Your task to perform on an android device: Open Reddit.com Image 0: 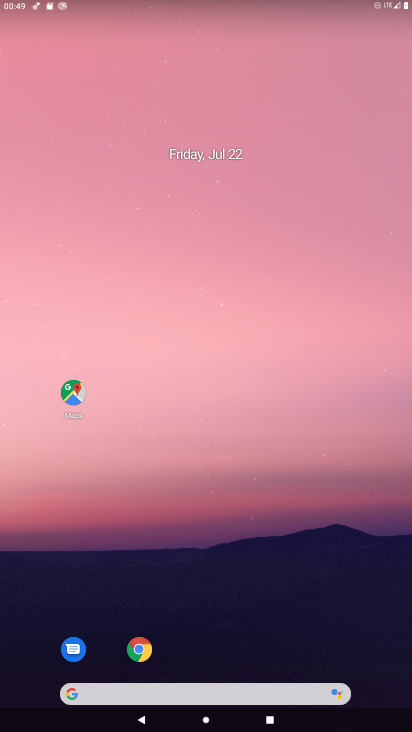
Step 0: drag from (230, 722) to (230, 326)
Your task to perform on an android device: Open Reddit.com Image 1: 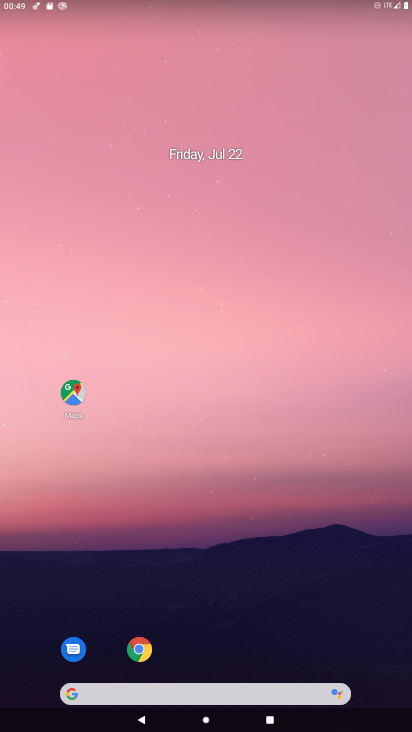
Step 1: click (143, 652)
Your task to perform on an android device: Open Reddit.com Image 2: 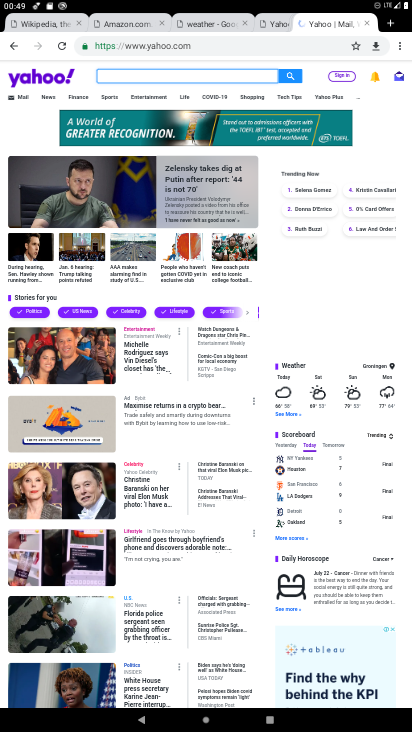
Step 2: click (401, 49)
Your task to perform on an android device: Open Reddit.com Image 3: 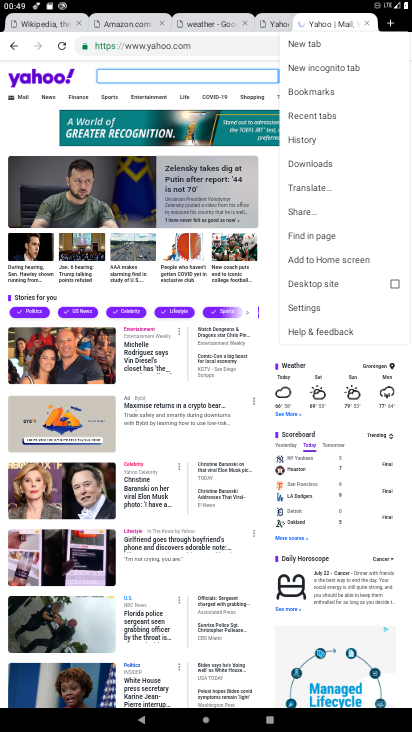
Step 3: click (311, 43)
Your task to perform on an android device: Open Reddit.com Image 4: 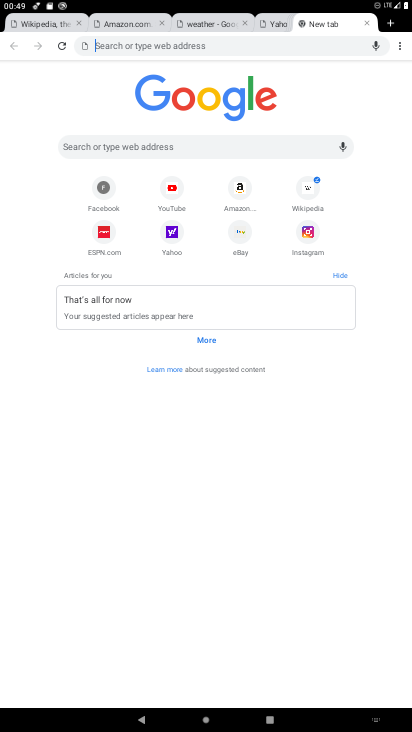
Step 4: click (220, 141)
Your task to perform on an android device: Open Reddit.com Image 5: 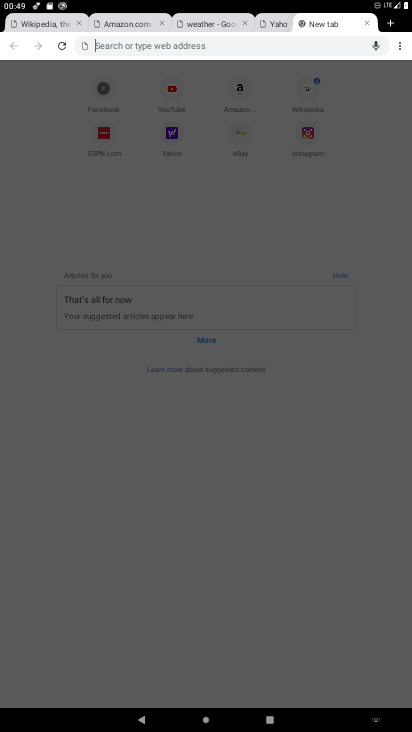
Step 5: type "Reddit.com"
Your task to perform on an android device: Open Reddit.com Image 6: 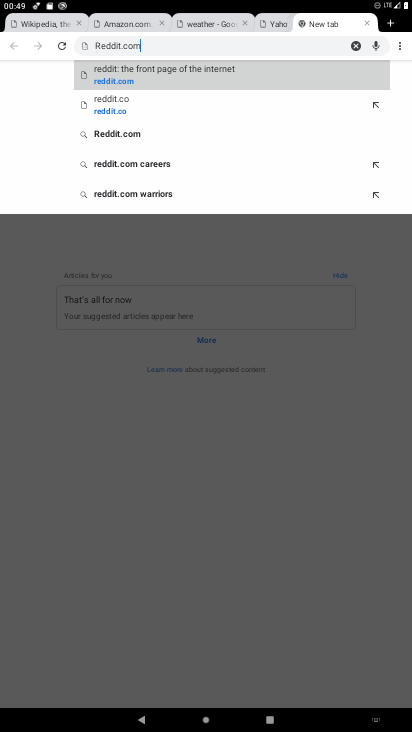
Step 6: type ""
Your task to perform on an android device: Open Reddit.com Image 7: 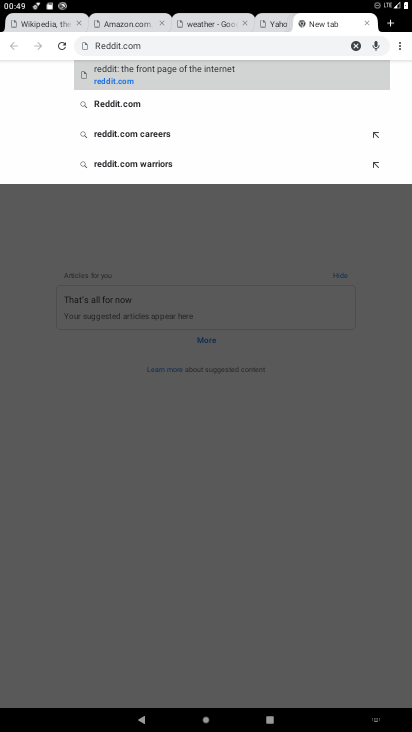
Step 7: click (144, 72)
Your task to perform on an android device: Open Reddit.com Image 8: 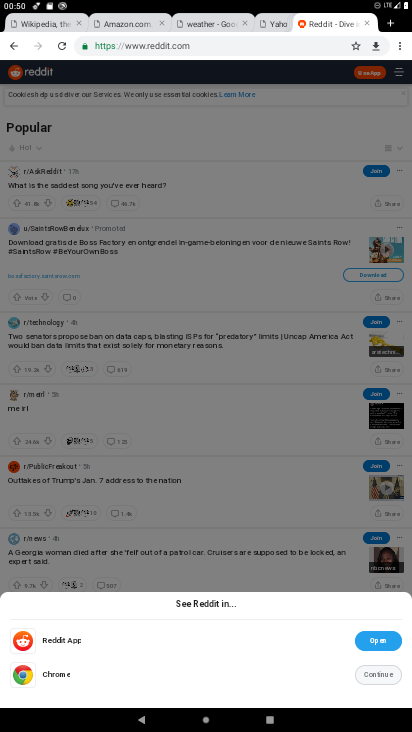
Step 8: task complete